Your task to perform on an android device: set an alarm Image 0: 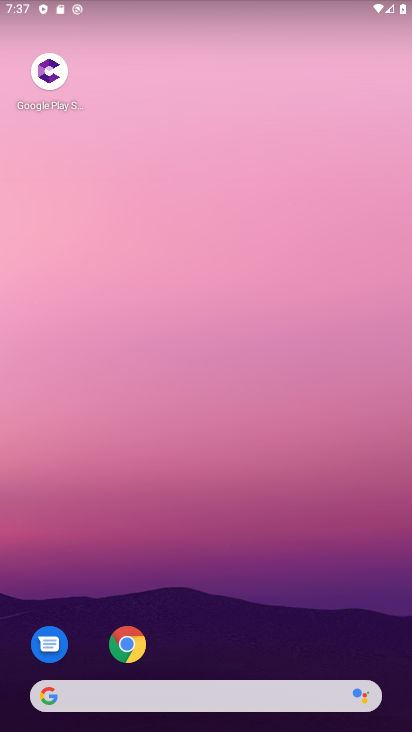
Step 0: drag from (269, 413) to (281, 292)
Your task to perform on an android device: set an alarm Image 1: 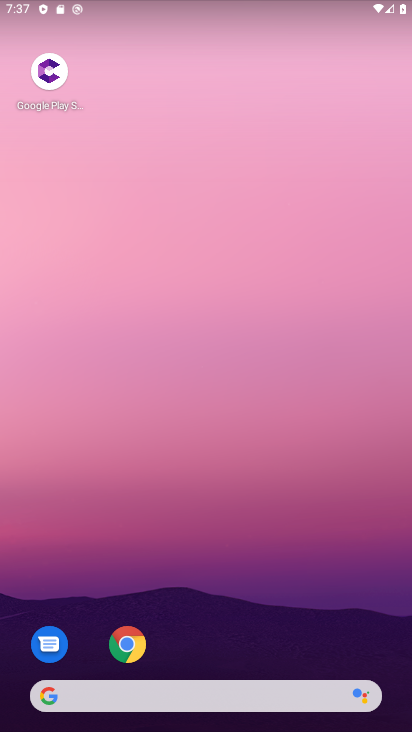
Step 1: drag from (232, 605) to (271, 83)
Your task to perform on an android device: set an alarm Image 2: 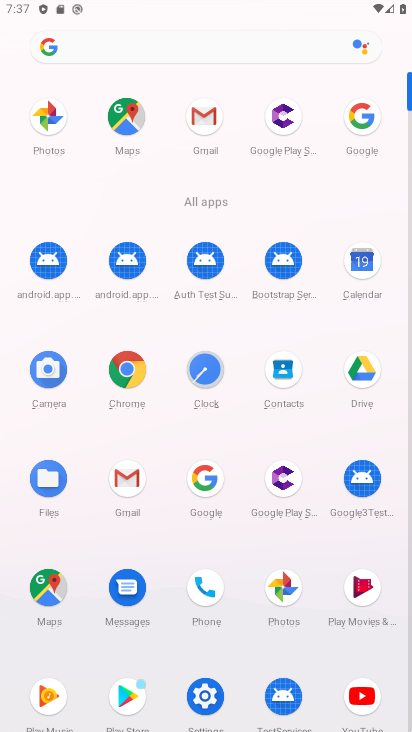
Step 2: click (215, 380)
Your task to perform on an android device: set an alarm Image 3: 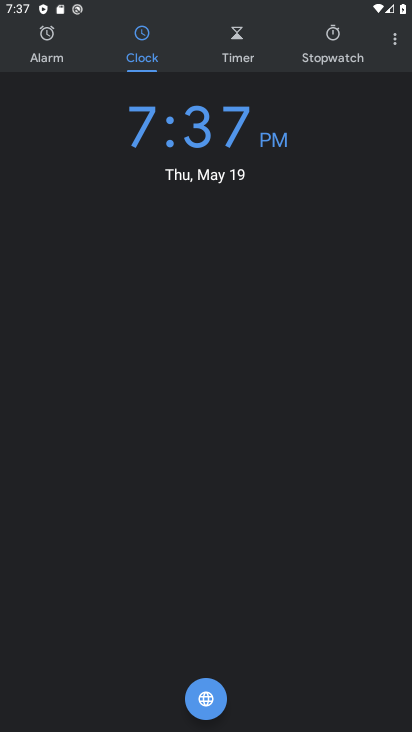
Step 3: click (68, 57)
Your task to perform on an android device: set an alarm Image 4: 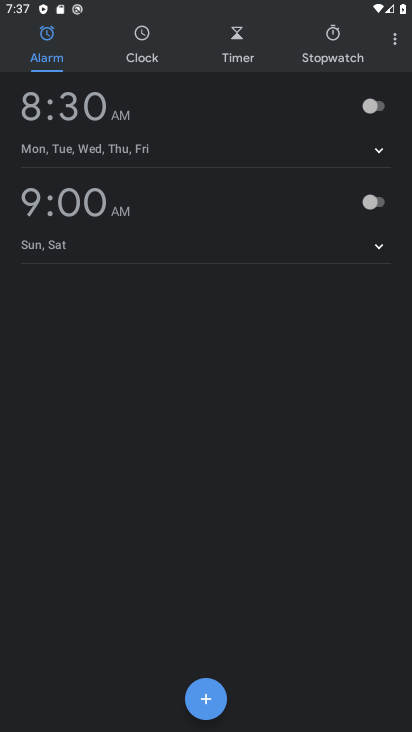
Step 4: click (207, 703)
Your task to perform on an android device: set an alarm Image 5: 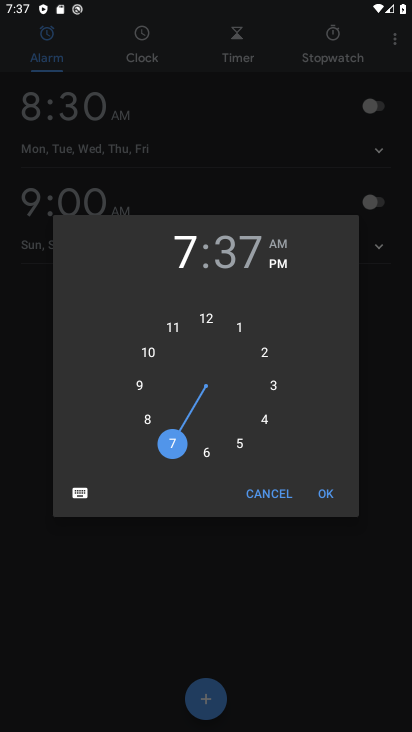
Step 5: click (148, 415)
Your task to perform on an android device: set an alarm Image 6: 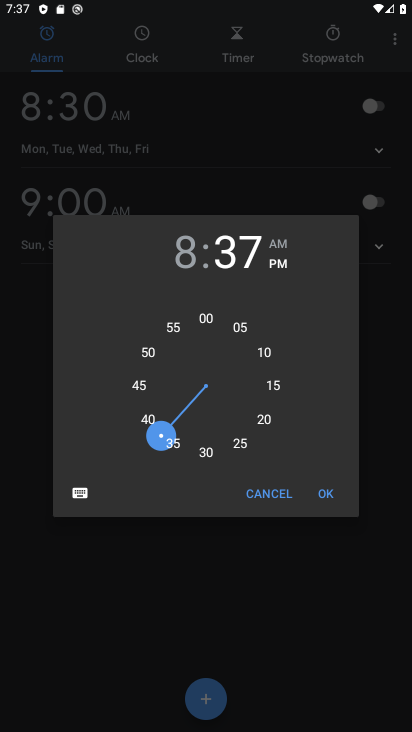
Step 6: click (210, 451)
Your task to perform on an android device: set an alarm Image 7: 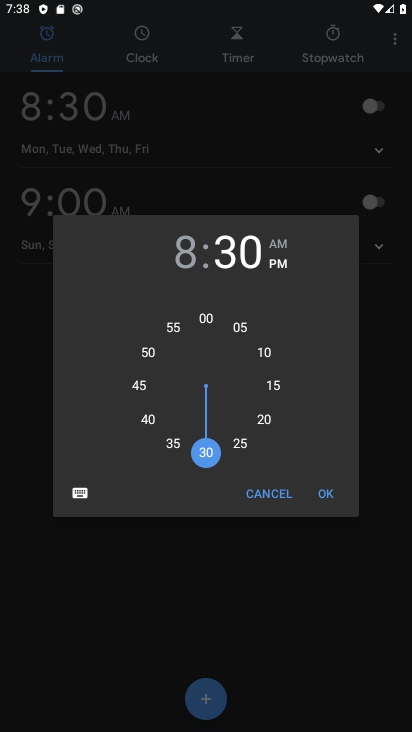
Step 7: click (284, 249)
Your task to perform on an android device: set an alarm Image 8: 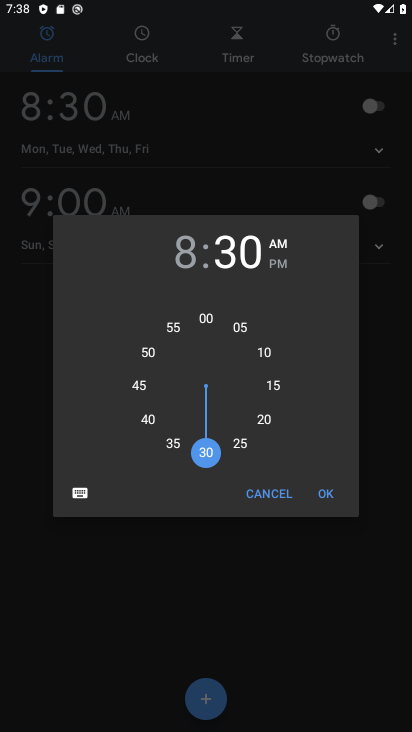
Step 8: click (325, 499)
Your task to perform on an android device: set an alarm Image 9: 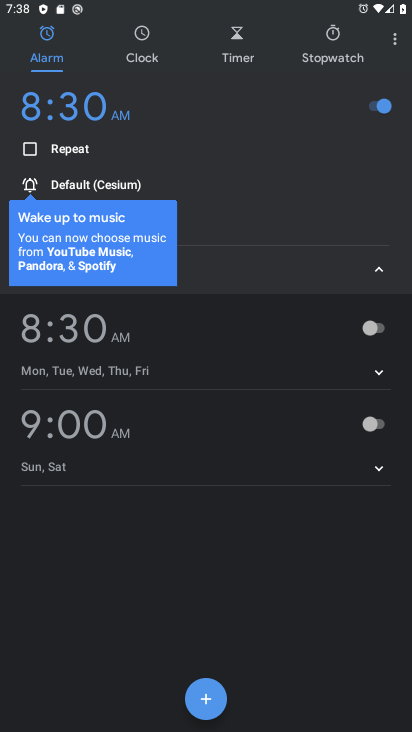
Step 9: click (383, 327)
Your task to perform on an android device: set an alarm Image 10: 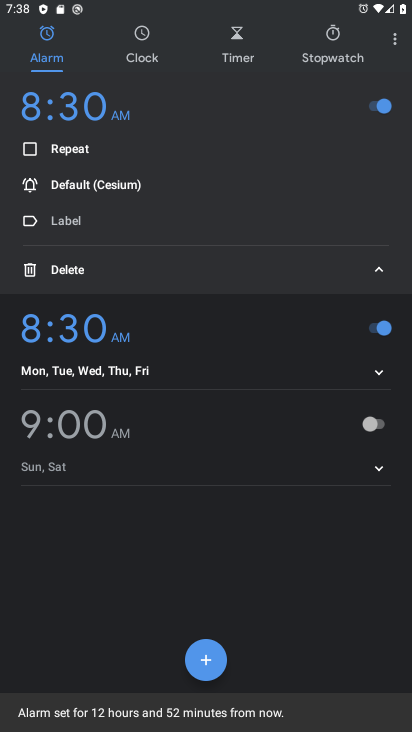
Step 10: click (371, 329)
Your task to perform on an android device: set an alarm Image 11: 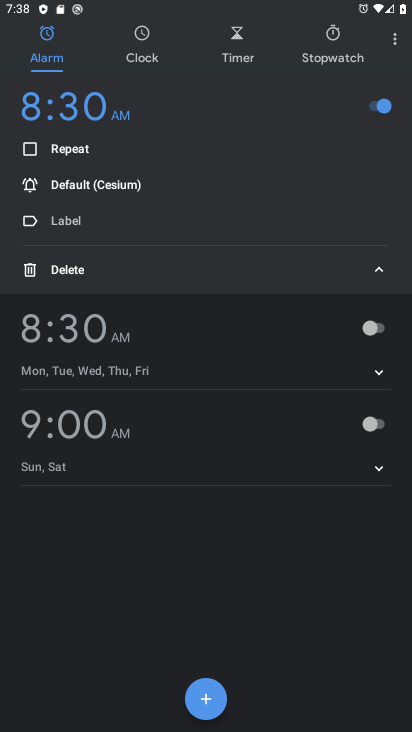
Step 11: task complete